Your task to perform on an android device: open a bookmark in the chrome app Image 0: 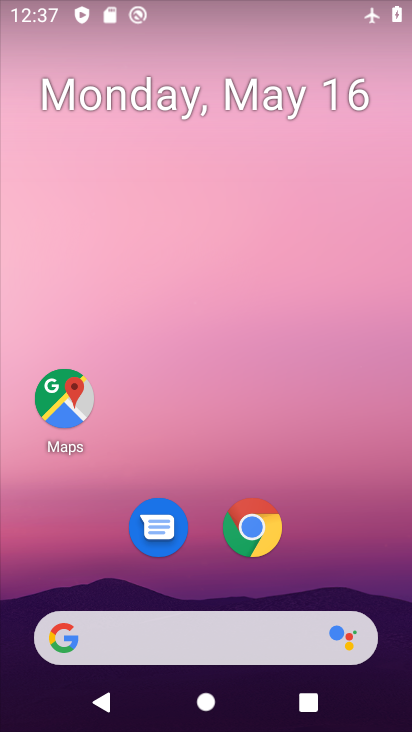
Step 0: click (248, 522)
Your task to perform on an android device: open a bookmark in the chrome app Image 1: 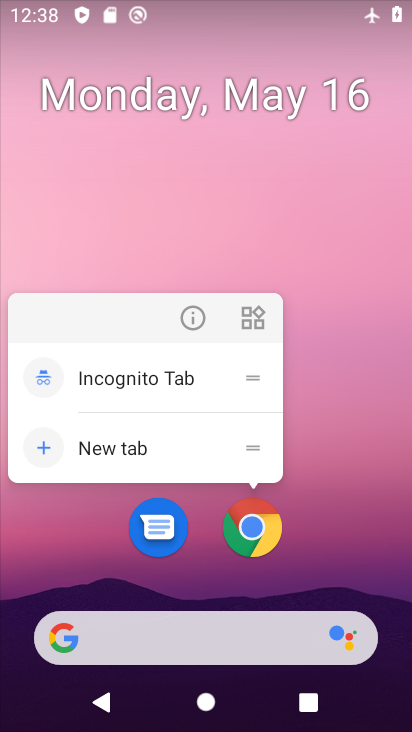
Step 1: click (255, 528)
Your task to perform on an android device: open a bookmark in the chrome app Image 2: 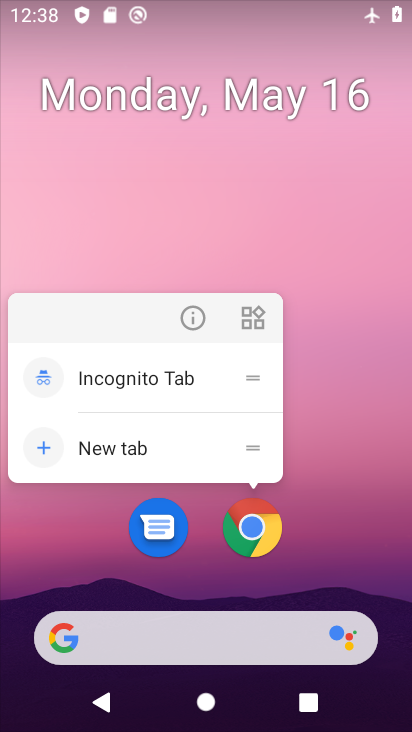
Step 2: click (255, 522)
Your task to perform on an android device: open a bookmark in the chrome app Image 3: 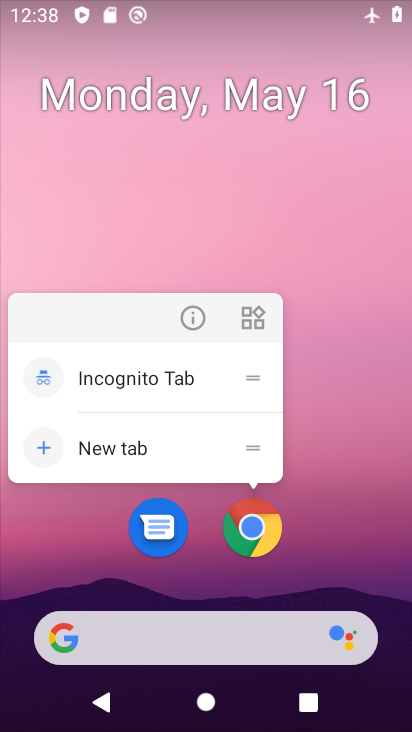
Step 3: click (258, 524)
Your task to perform on an android device: open a bookmark in the chrome app Image 4: 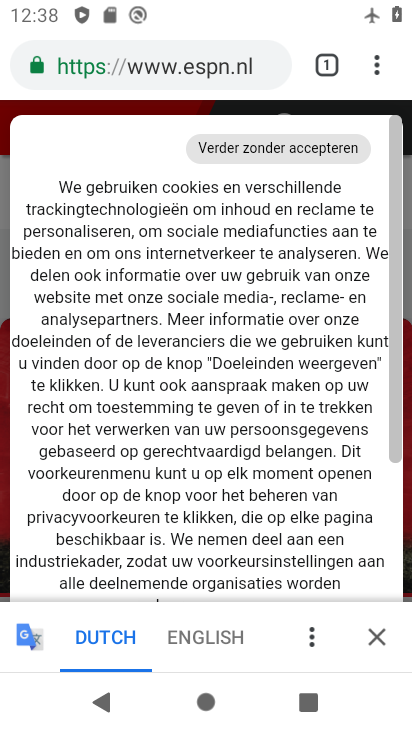
Step 4: click (371, 639)
Your task to perform on an android device: open a bookmark in the chrome app Image 5: 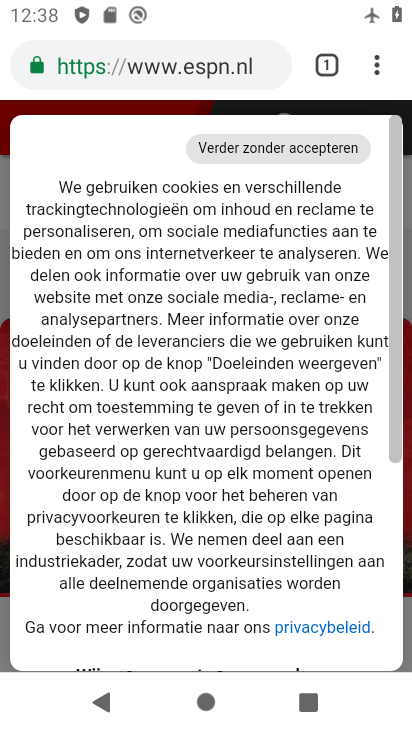
Step 5: click (379, 56)
Your task to perform on an android device: open a bookmark in the chrome app Image 6: 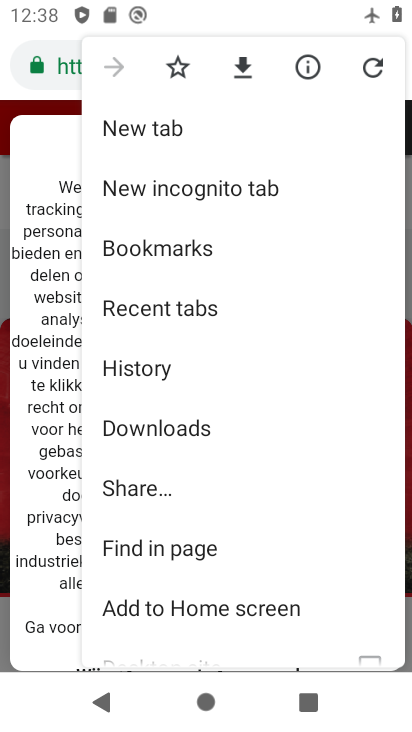
Step 6: click (192, 236)
Your task to perform on an android device: open a bookmark in the chrome app Image 7: 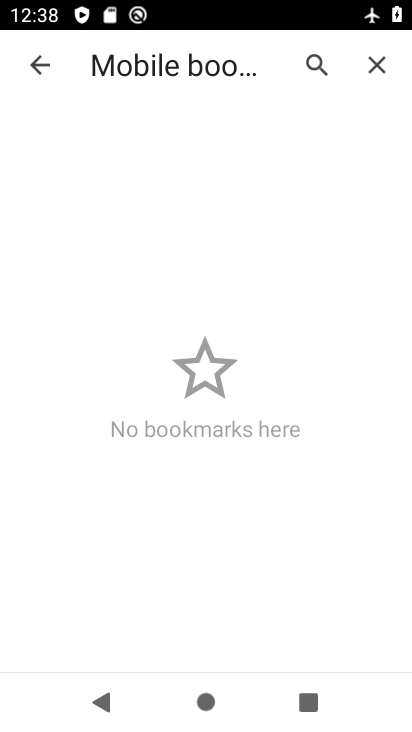
Step 7: task complete